Your task to perform on an android device: turn notification dots on Image 0: 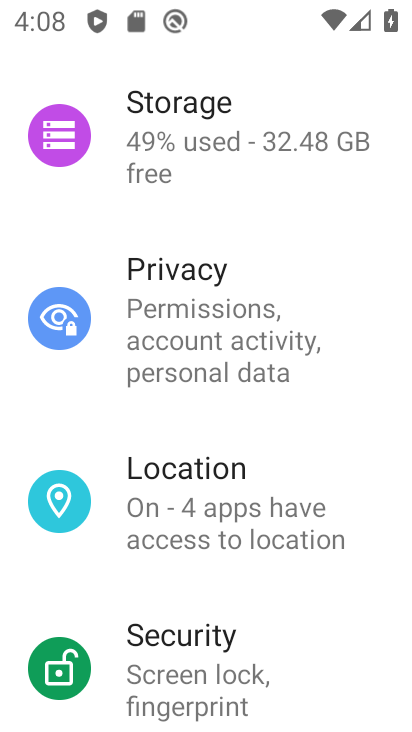
Step 0: drag from (234, 190) to (247, 691)
Your task to perform on an android device: turn notification dots on Image 1: 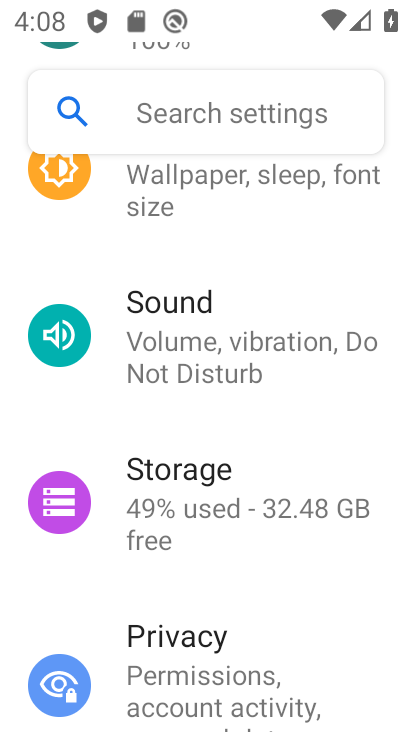
Step 1: drag from (210, 205) to (195, 711)
Your task to perform on an android device: turn notification dots on Image 2: 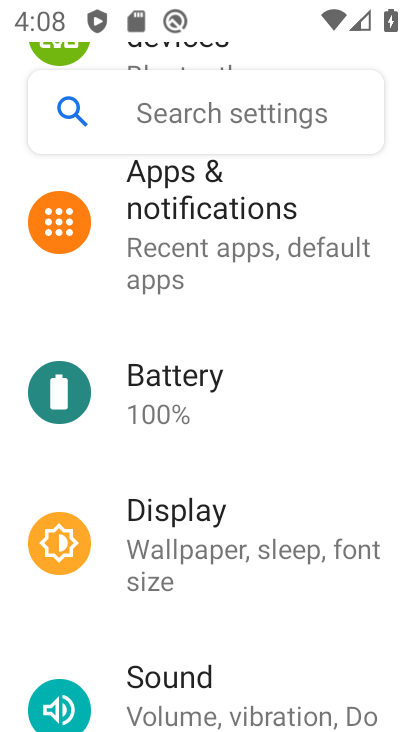
Step 2: click (280, 232)
Your task to perform on an android device: turn notification dots on Image 3: 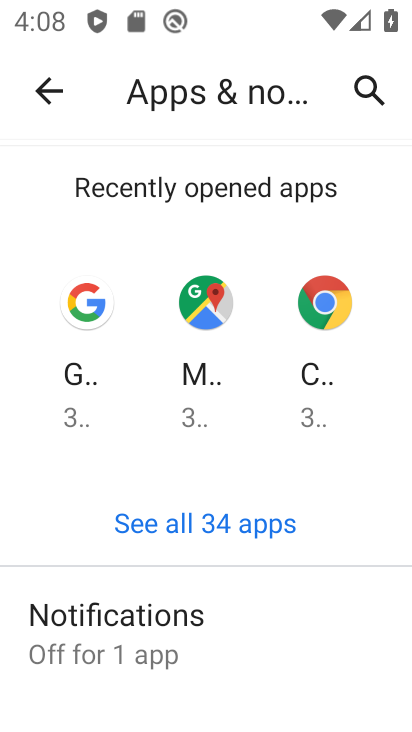
Step 3: drag from (147, 627) to (176, 143)
Your task to perform on an android device: turn notification dots on Image 4: 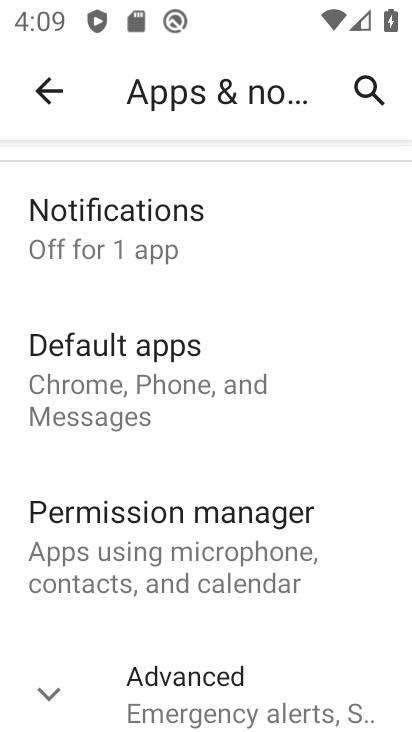
Step 4: drag from (207, 589) to (283, 133)
Your task to perform on an android device: turn notification dots on Image 5: 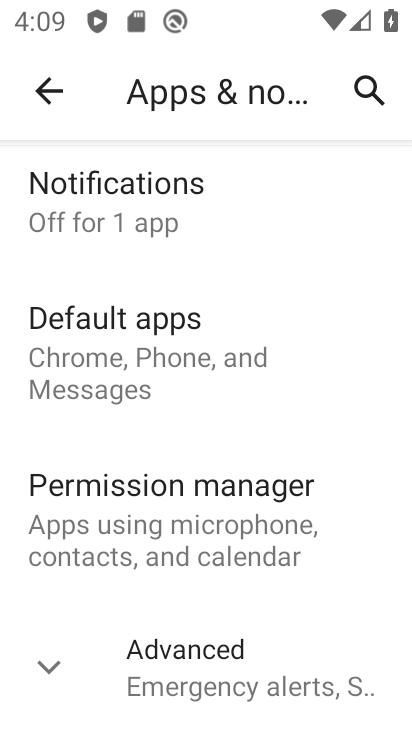
Step 5: drag from (228, 660) to (303, 141)
Your task to perform on an android device: turn notification dots on Image 6: 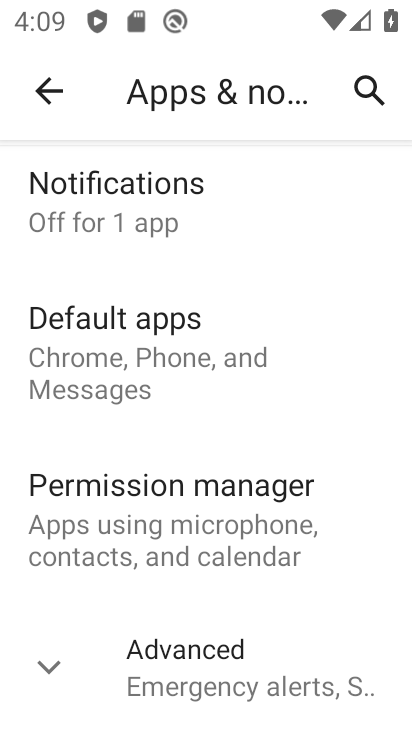
Step 6: click (198, 714)
Your task to perform on an android device: turn notification dots on Image 7: 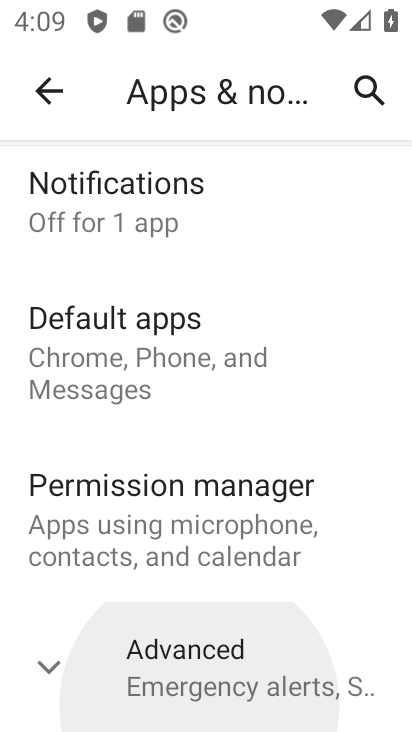
Step 7: click (198, 686)
Your task to perform on an android device: turn notification dots on Image 8: 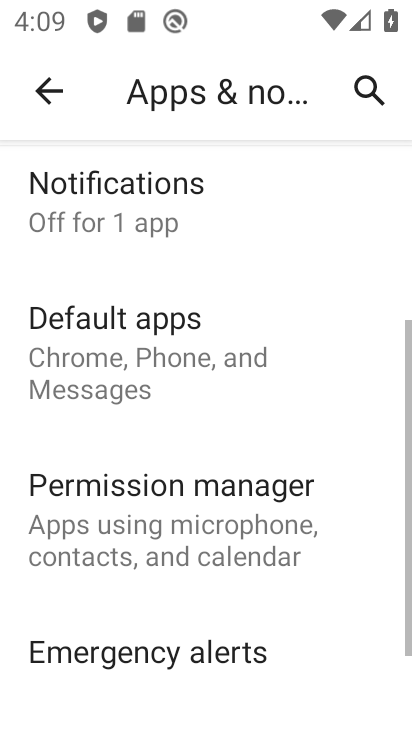
Step 8: drag from (199, 680) to (255, 179)
Your task to perform on an android device: turn notification dots on Image 9: 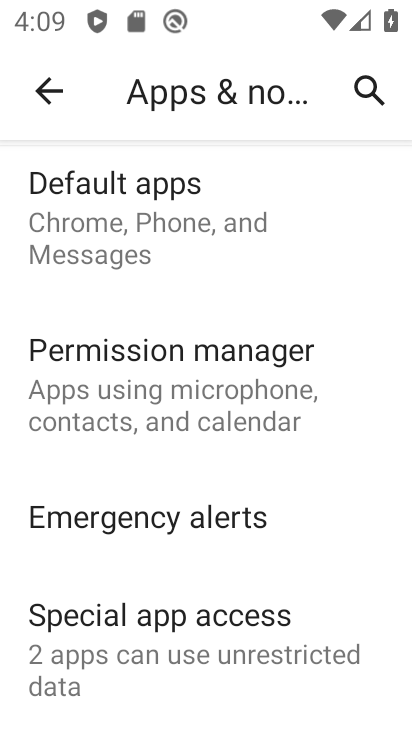
Step 9: drag from (176, 638) to (221, 332)
Your task to perform on an android device: turn notification dots on Image 10: 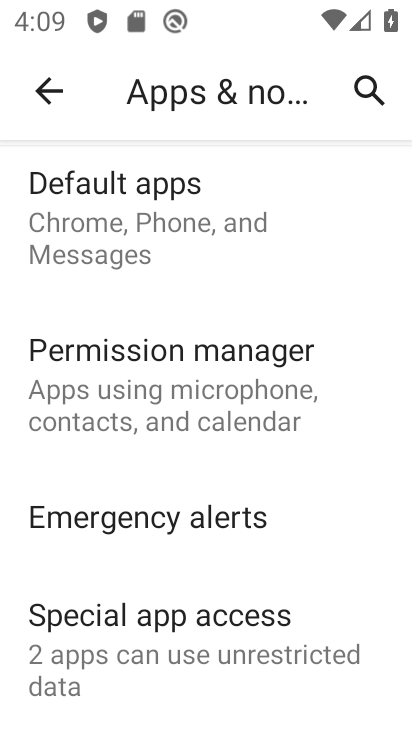
Step 10: drag from (244, 270) to (205, 684)
Your task to perform on an android device: turn notification dots on Image 11: 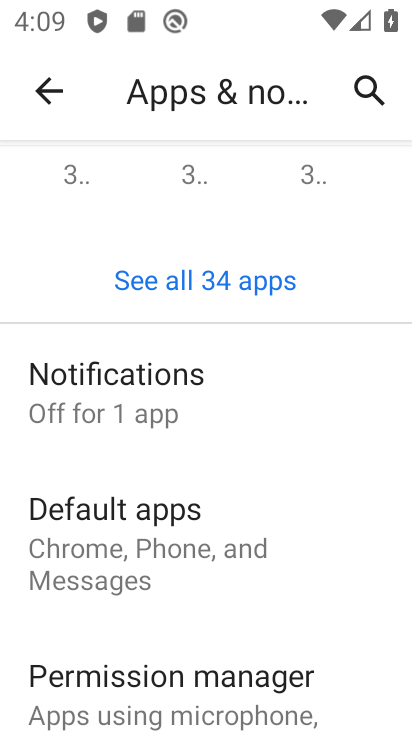
Step 11: click (163, 375)
Your task to perform on an android device: turn notification dots on Image 12: 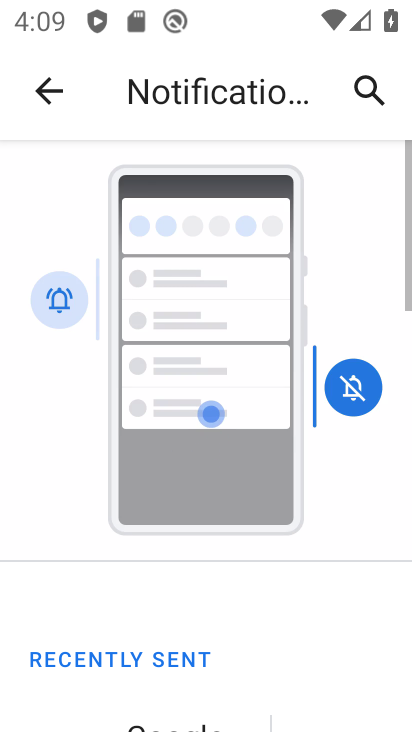
Step 12: drag from (232, 618) to (297, 123)
Your task to perform on an android device: turn notification dots on Image 13: 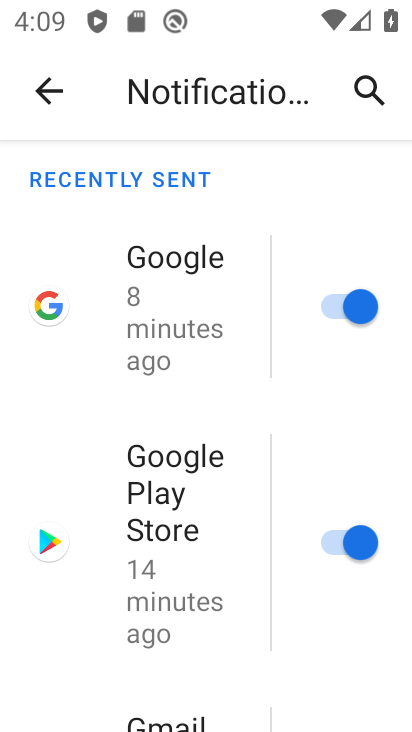
Step 13: drag from (230, 662) to (301, 115)
Your task to perform on an android device: turn notification dots on Image 14: 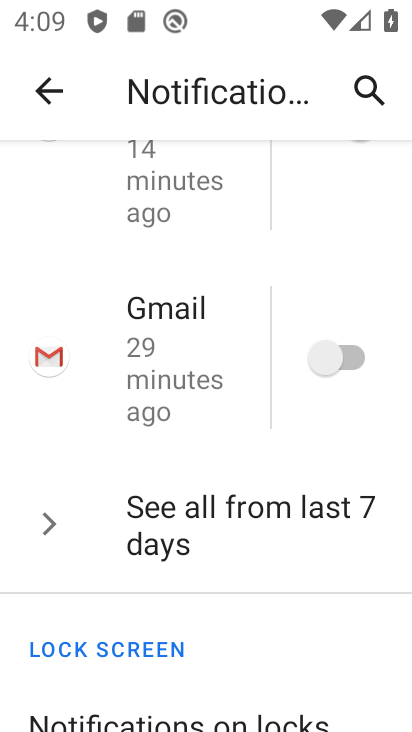
Step 14: drag from (179, 686) to (286, 135)
Your task to perform on an android device: turn notification dots on Image 15: 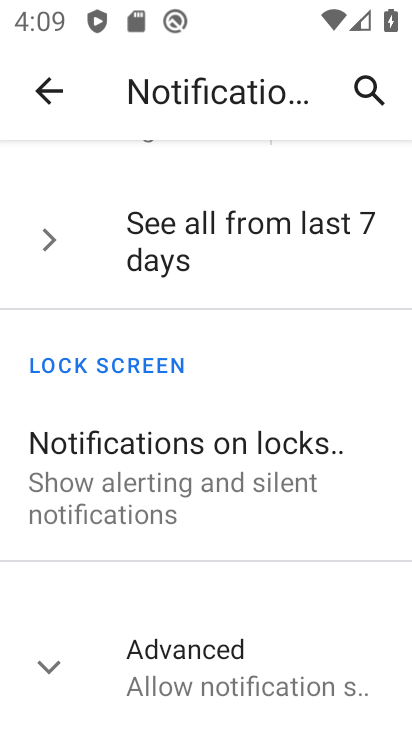
Step 15: click (191, 630)
Your task to perform on an android device: turn notification dots on Image 16: 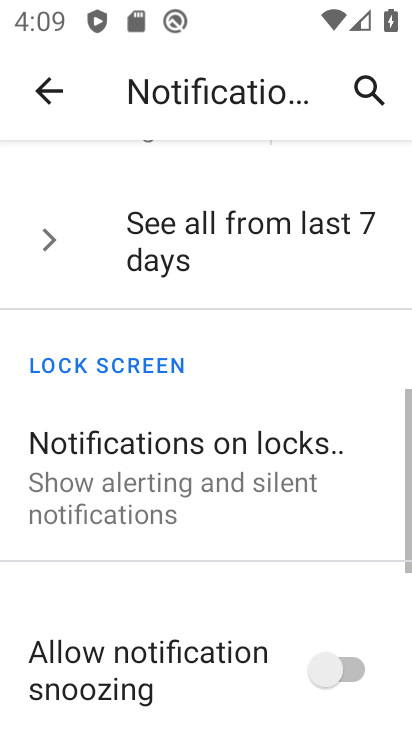
Step 16: task complete